Your task to perform on an android device: open wifi settings Image 0: 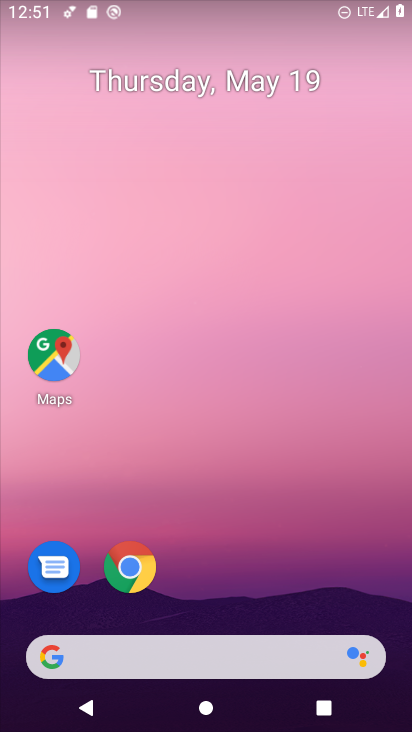
Step 0: drag from (274, 530) to (249, 52)
Your task to perform on an android device: open wifi settings Image 1: 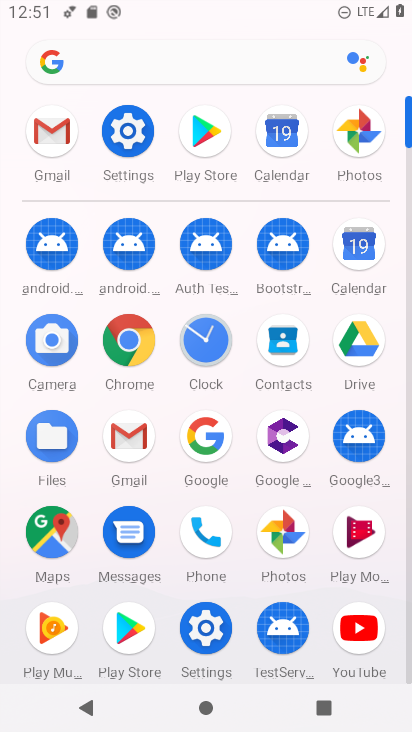
Step 1: click (132, 143)
Your task to perform on an android device: open wifi settings Image 2: 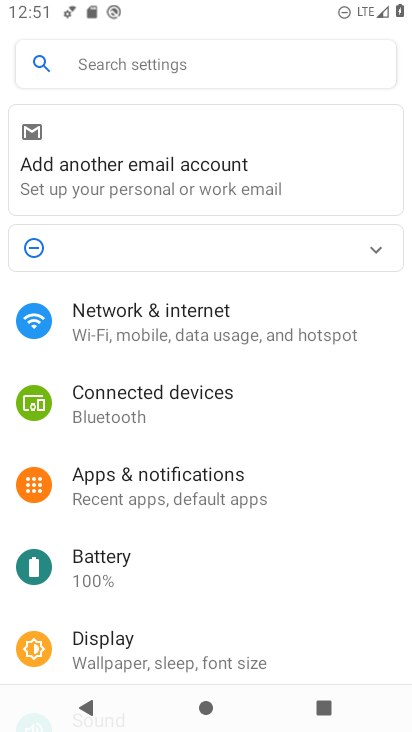
Step 2: click (187, 324)
Your task to perform on an android device: open wifi settings Image 3: 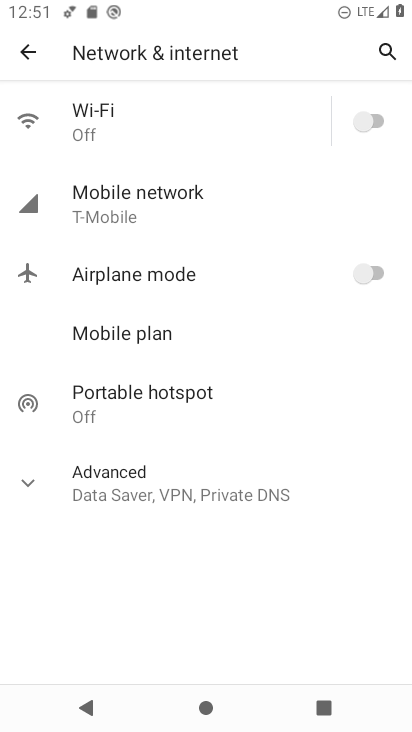
Step 3: click (148, 117)
Your task to perform on an android device: open wifi settings Image 4: 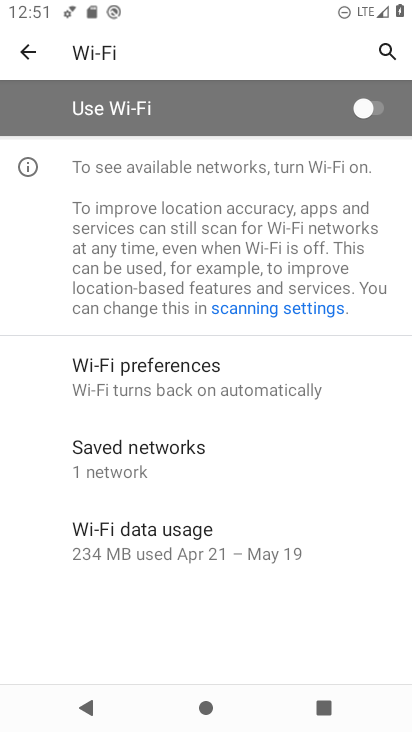
Step 4: task complete